Your task to perform on an android device: all mails in gmail Image 0: 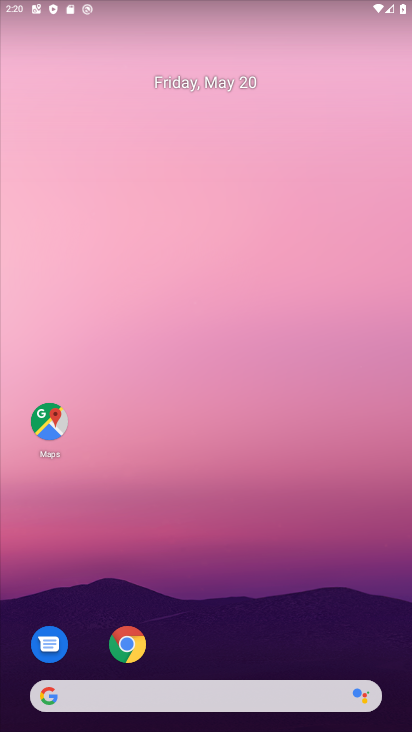
Step 0: drag from (330, 645) to (167, 140)
Your task to perform on an android device: all mails in gmail Image 1: 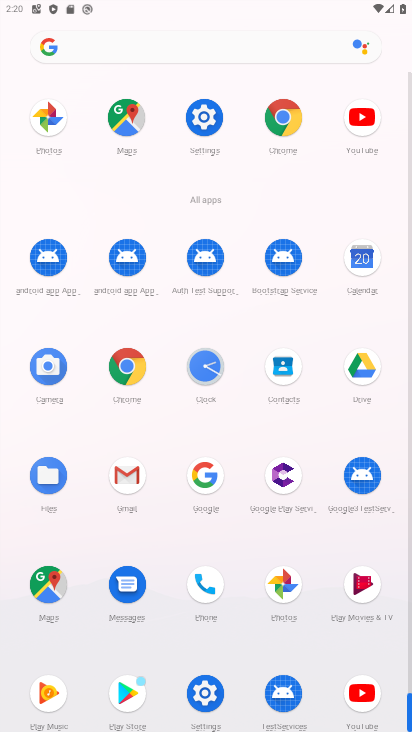
Step 1: click (122, 477)
Your task to perform on an android device: all mails in gmail Image 2: 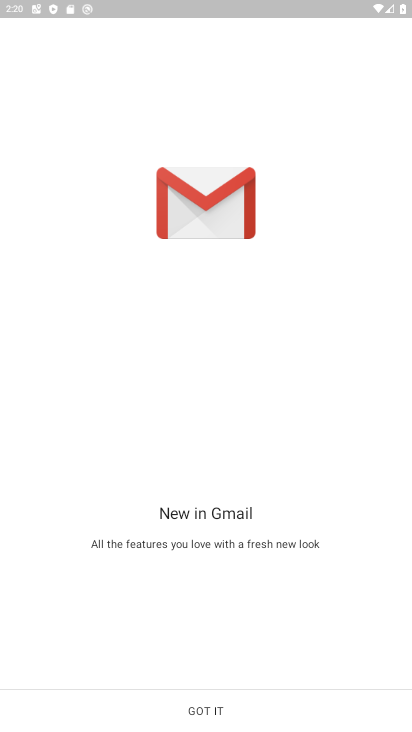
Step 2: click (266, 701)
Your task to perform on an android device: all mails in gmail Image 3: 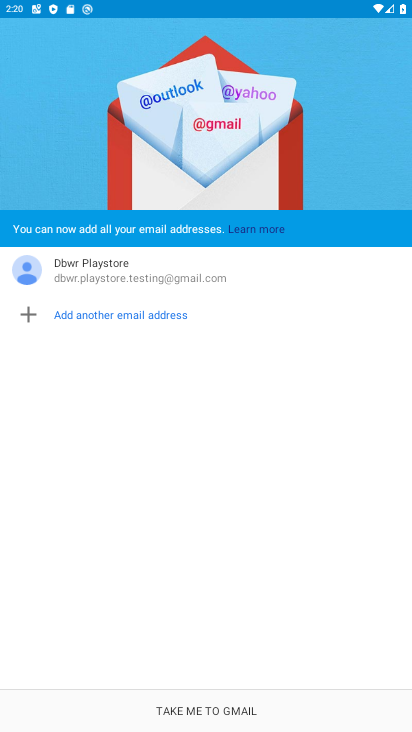
Step 3: click (221, 695)
Your task to perform on an android device: all mails in gmail Image 4: 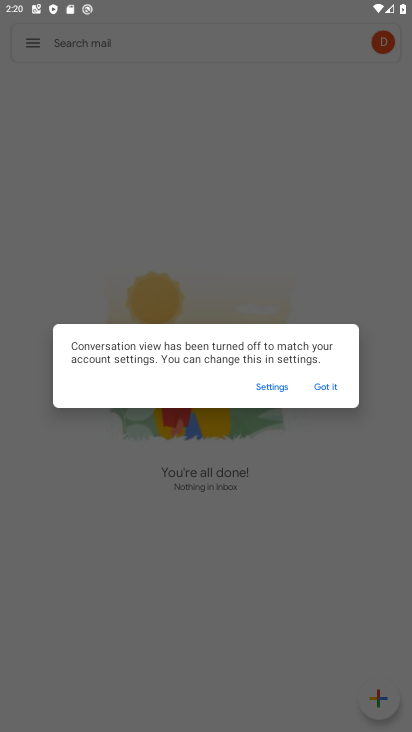
Step 4: click (317, 387)
Your task to perform on an android device: all mails in gmail Image 5: 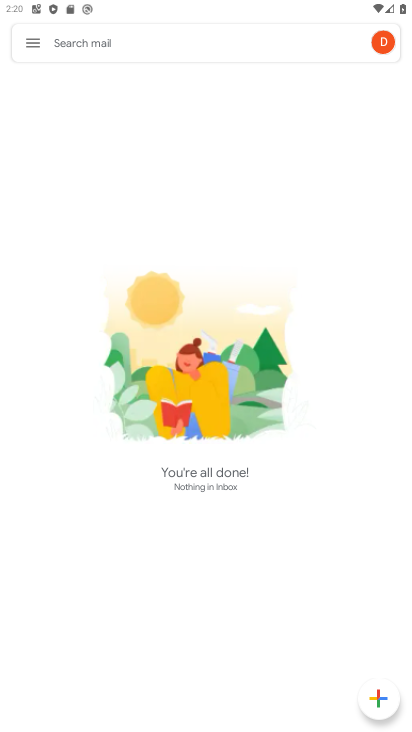
Step 5: click (34, 40)
Your task to perform on an android device: all mails in gmail Image 6: 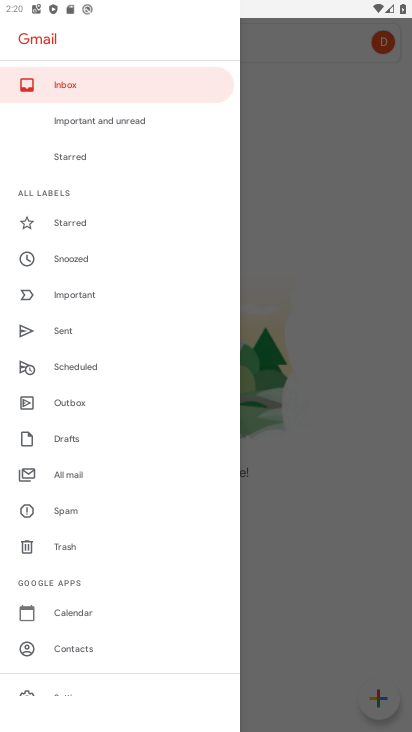
Step 6: click (56, 474)
Your task to perform on an android device: all mails in gmail Image 7: 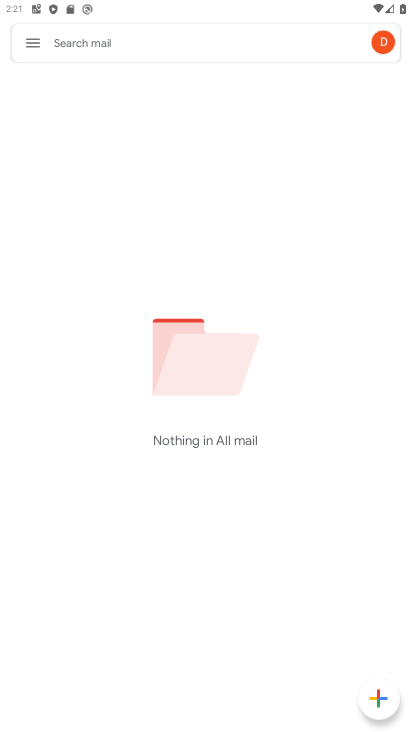
Step 7: task complete